Your task to perform on an android device: Search for dining room chairs on Crate & Barrel Image 0: 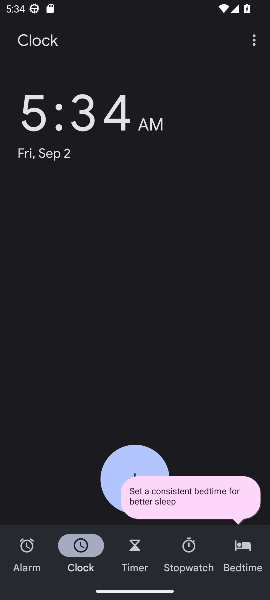
Step 0: press home button
Your task to perform on an android device: Search for dining room chairs on Crate & Barrel Image 1: 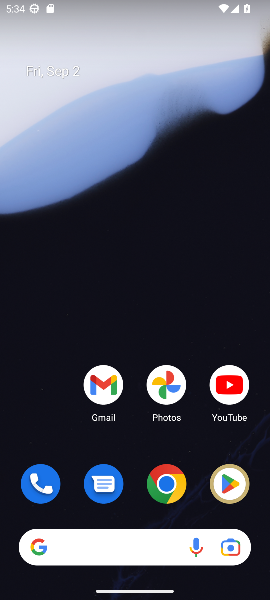
Step 1: click (168, 484)
Your task to perform on an android device: Search for dining room chairs on Crate & Barrel Image 2: 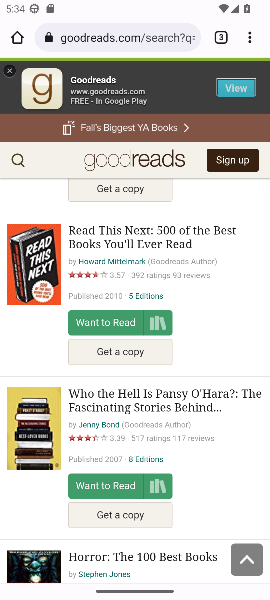
Step 2: click (151, 38)
Your task to perform on an android device: Search for dining room chairs on Crate & Barrel Image 3: 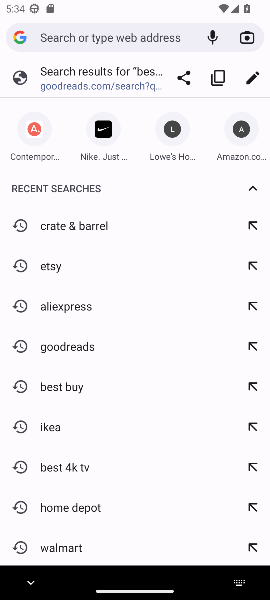
Step 3: type " Crate & Barrel"
Your task to perform on an android device: Search for dining room chairs on Crate & Barrel Image 4: 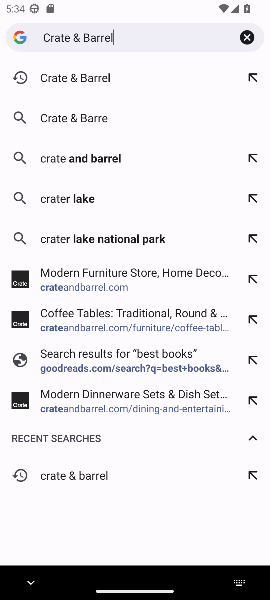
Step 4: press enter
Your task to perform on an android device: Search for dining room chairs on Crate & Barrel Image 5: 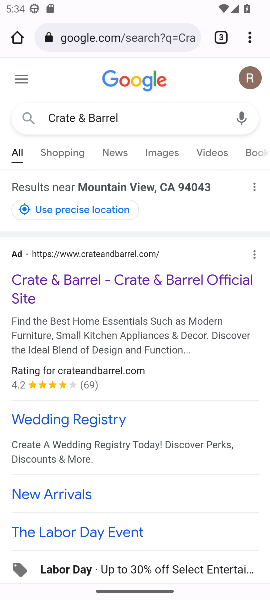
Step 5: click (173, 281)
Your task to perform on an android device: Search for dining room chairs on Crate & Barrel Image 6: 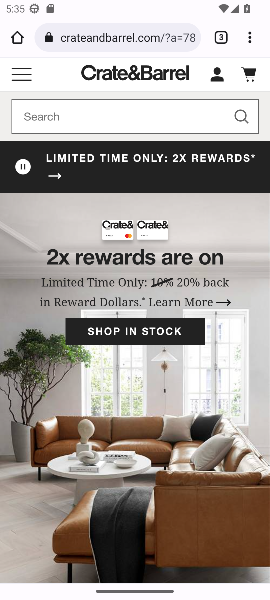
Step 6: click (114, 112)
Your task to perform on an android device: Search for dining room chairs on Crate & Barrel Image 7: 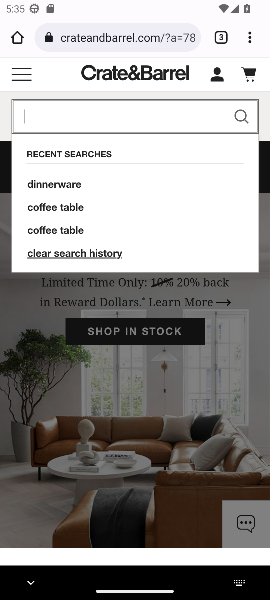
Step 7: type "dining room chairs "
Your task to perform on an android device: Search for dining room chairs on Crate & Barrel Image 8: 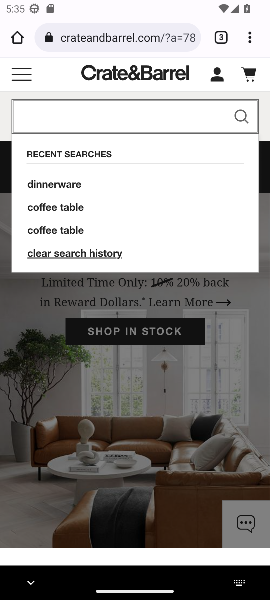
Step 8: press enter
Your task to perform on an android device: Search for dining room chairs on Crate & Barrel Image 9: 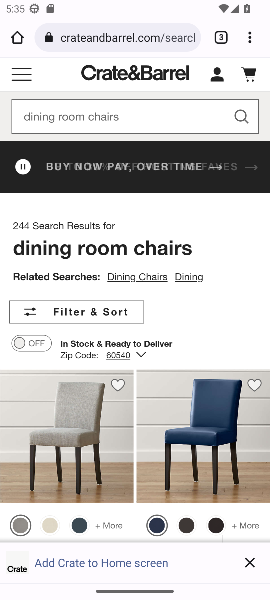
Step 9: drag from (135, 484) to (228, 255)
Your task to perform on an android device: Search for dining room chairs on Crate & Barrel Image 10: 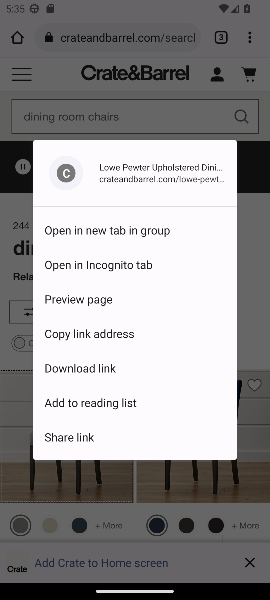
Step 10: click (260, 317)
Your task to perform on an android device: Search for dining room chairs on Crate & Barrel Image 11: 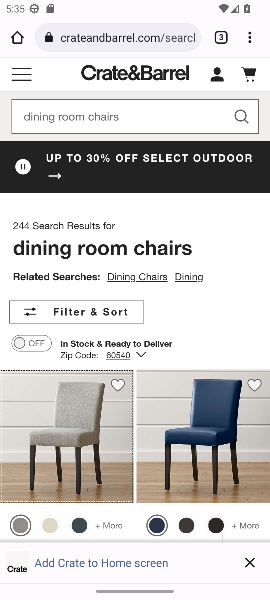
Step 11: task complete